Your task to perform on an android device: toggle translation in the chrome app Image 0: 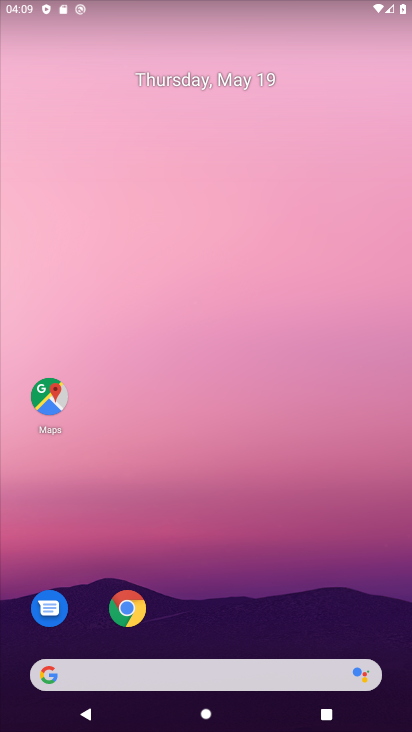
Step 0: click (127, 607)
Your task to perform on an android device: toggle translation in the chrome app Image 1: 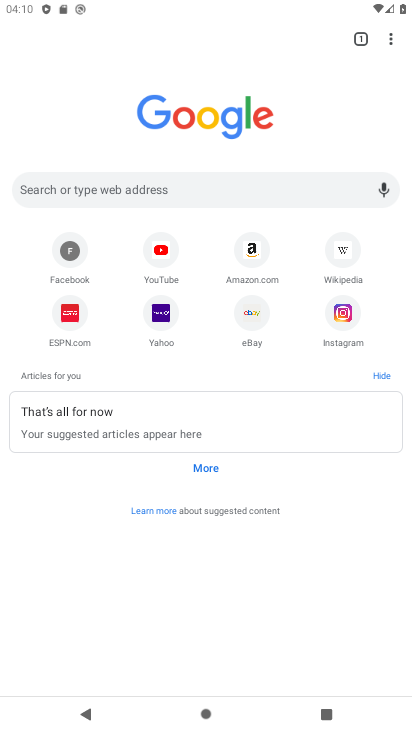
Step 1: click (390, 37)
Your task to perform on an android device: toggle translation in the chrome app Image 2: 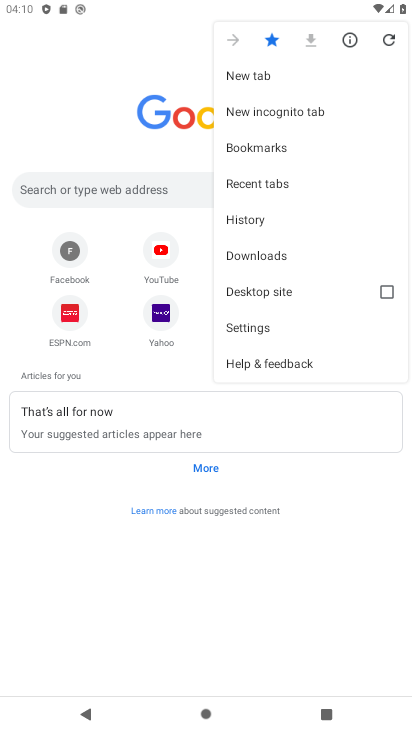
Step 2: click (245, 329)
Your task to perform on an android device: toggle translation in the chrome app Image 3: 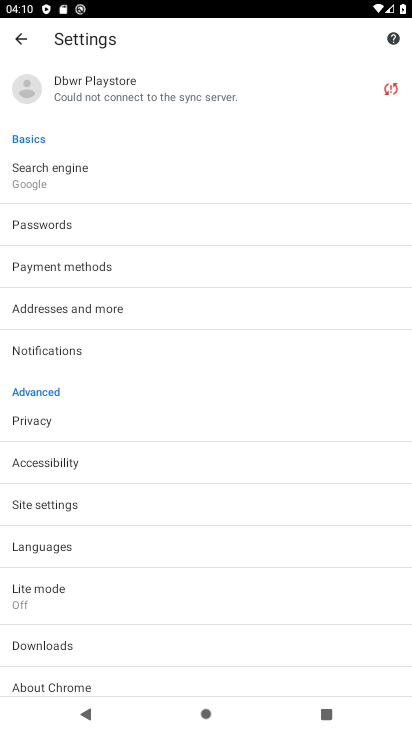
Step 3: click (53, 547)
Your task to perform on an android device: toggle translation in the chrome app Image 4: 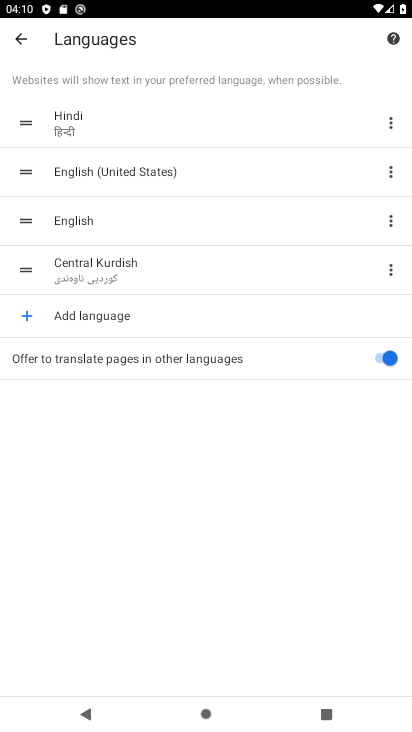
Step 4: click (386, 364)
Your task to perform on an android device: toggle translation in the chrome app Image 5: 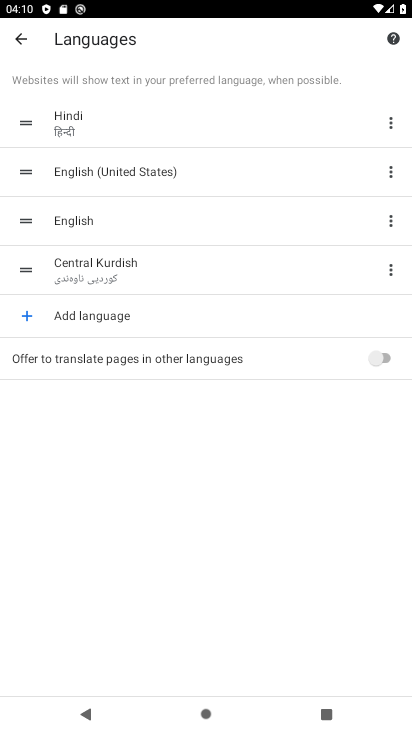
Step 5: task complete